Your task to perform on an android device: turn off wifi Image 0: 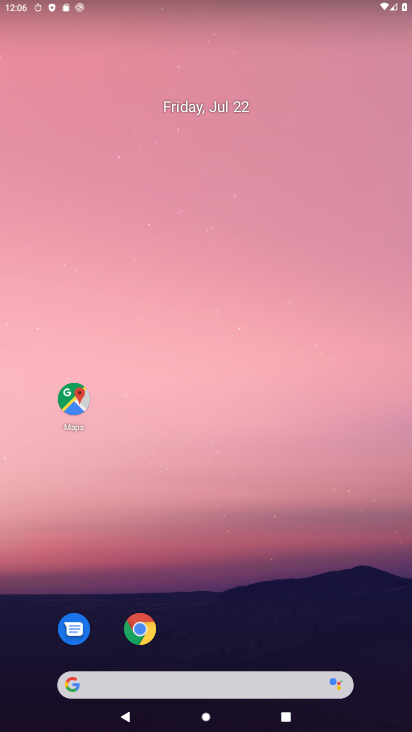
Step 0: drag from (361, 548) to (367, 135)
Your task to perform on an android device: turn off wifi Image 1: 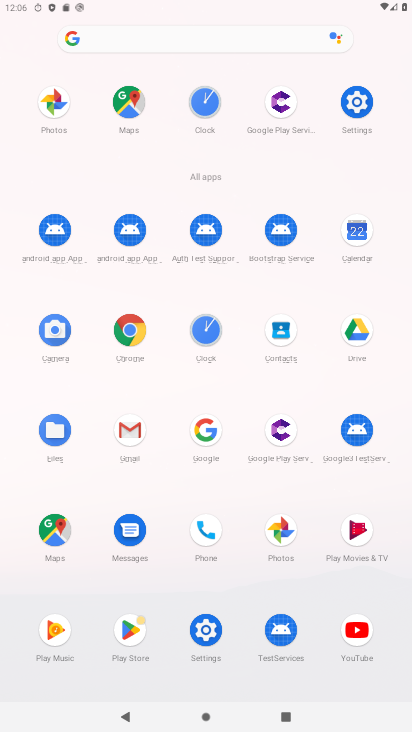
Step 1: click (368, 103)
Your task to perform on an android device: turn off wifi Image 2: 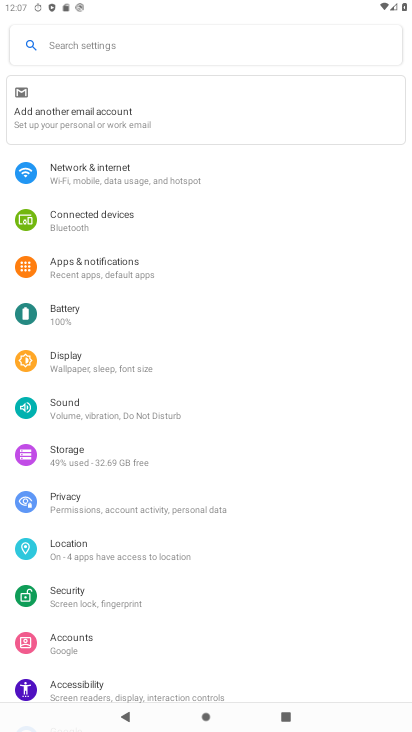
Step 2: drag from (339, 413) to (342, 352)
Your task to perform on an android device: turn off wifi Image 3: 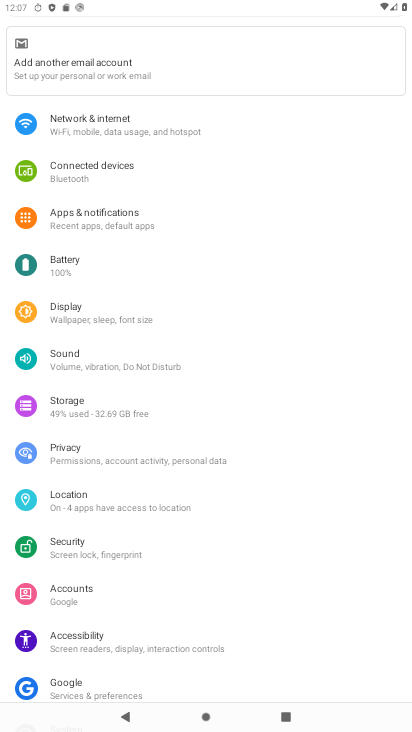
Step 3: drag from (335, 391) to (344, 333)
Your task to perform on an android device: turn off wifi Image 4: 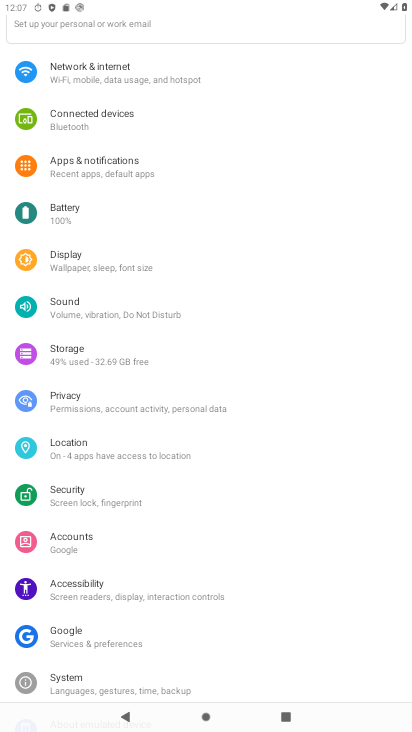
Step 4: drag from (348, 432) to (349, 359)
Your task to perform on an android device: turn off wifi Image 5: 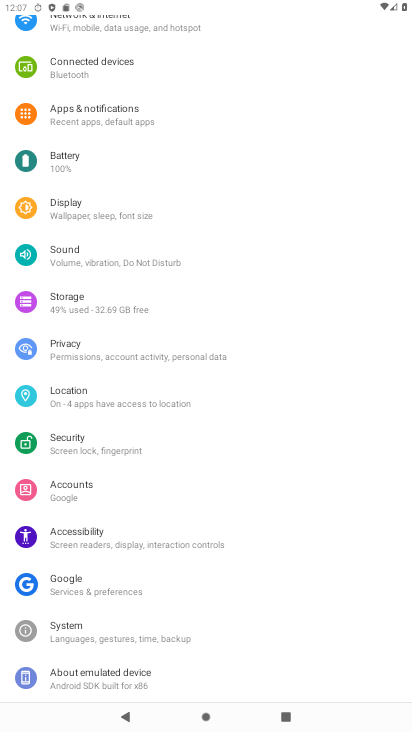
Step 5: drag from (333, 441) to (344, 358)
Your task to perform on an android device: turn off wifi Image 6: 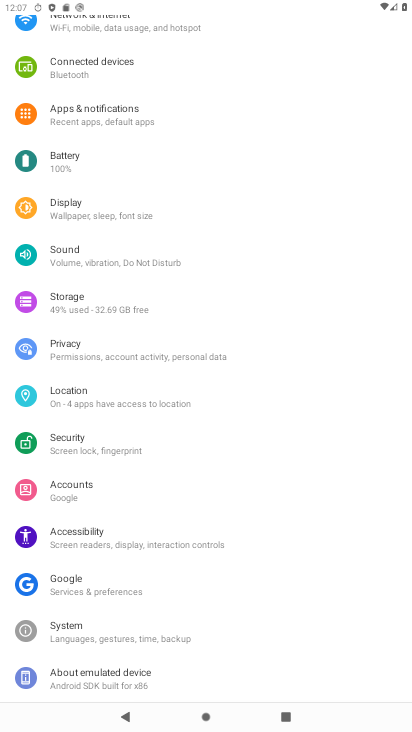
Step 6: drag from (325, 277) to (311, 347)
Your task to perform on an android device: turn off wifi Image 7: 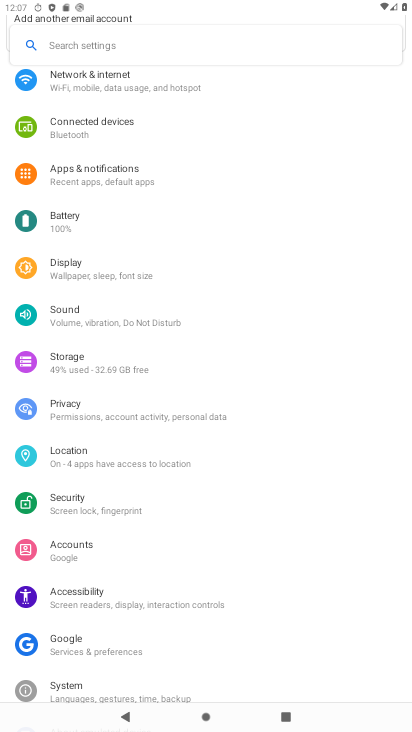
Step 7: drag from (313, 248) to (319, 319)
Your task to perform on an android device: turn off wifi Image 8: 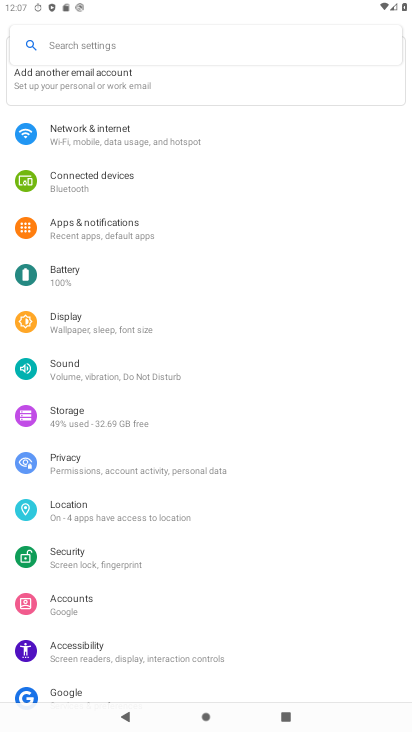
Step 8: drag from (319, 236) to (312, 316)
Your task to perform on an android device: turn off wifi Image 9: 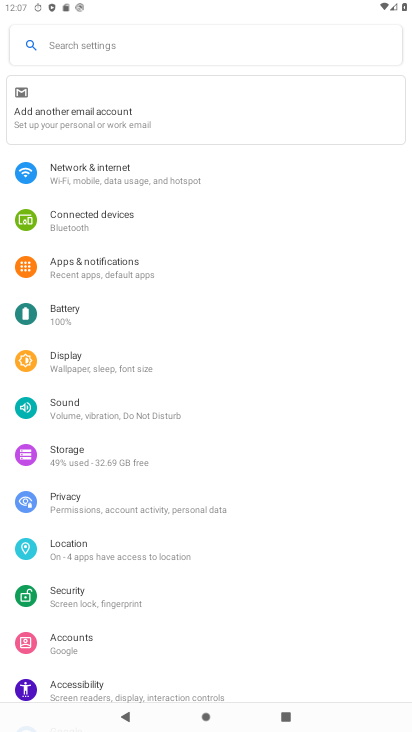
Step 9: drag from (309, 235) to (314, 328)
Your task to perform on an android device: turn off wifi Image 10: 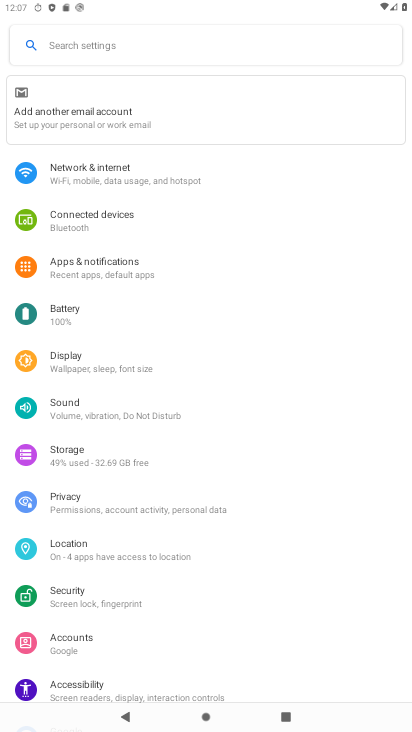
Step 10: click (221, 178)
Your task to perform on an android device: turn off wifi Image 11: 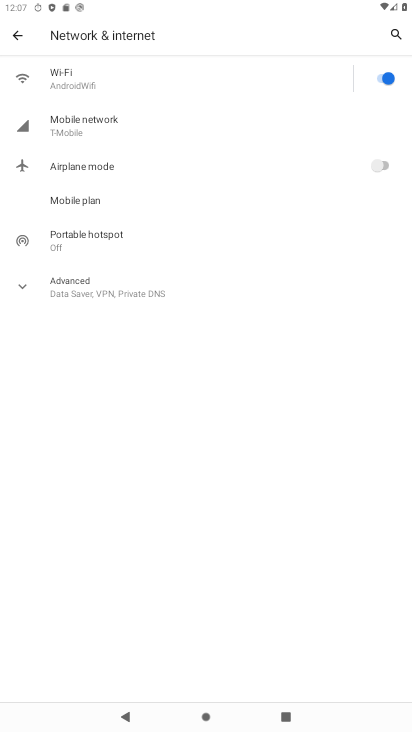
Step 11: click (372, 88)
Your task to perform on an android device: turn off wifi Image 12: 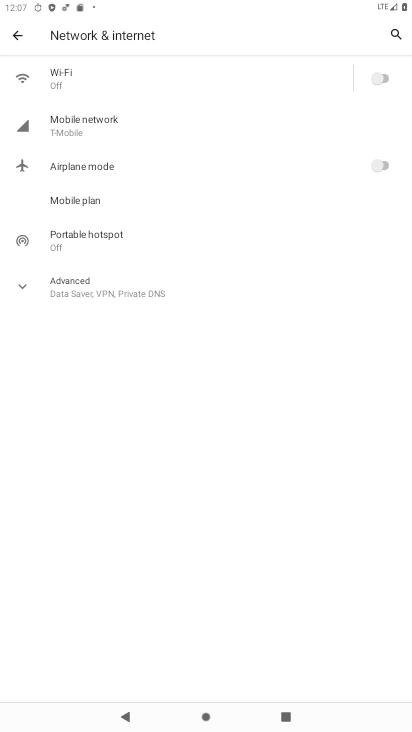
Step 12: task complete